Your task to perform on an android device: Go to network settings Image 0: 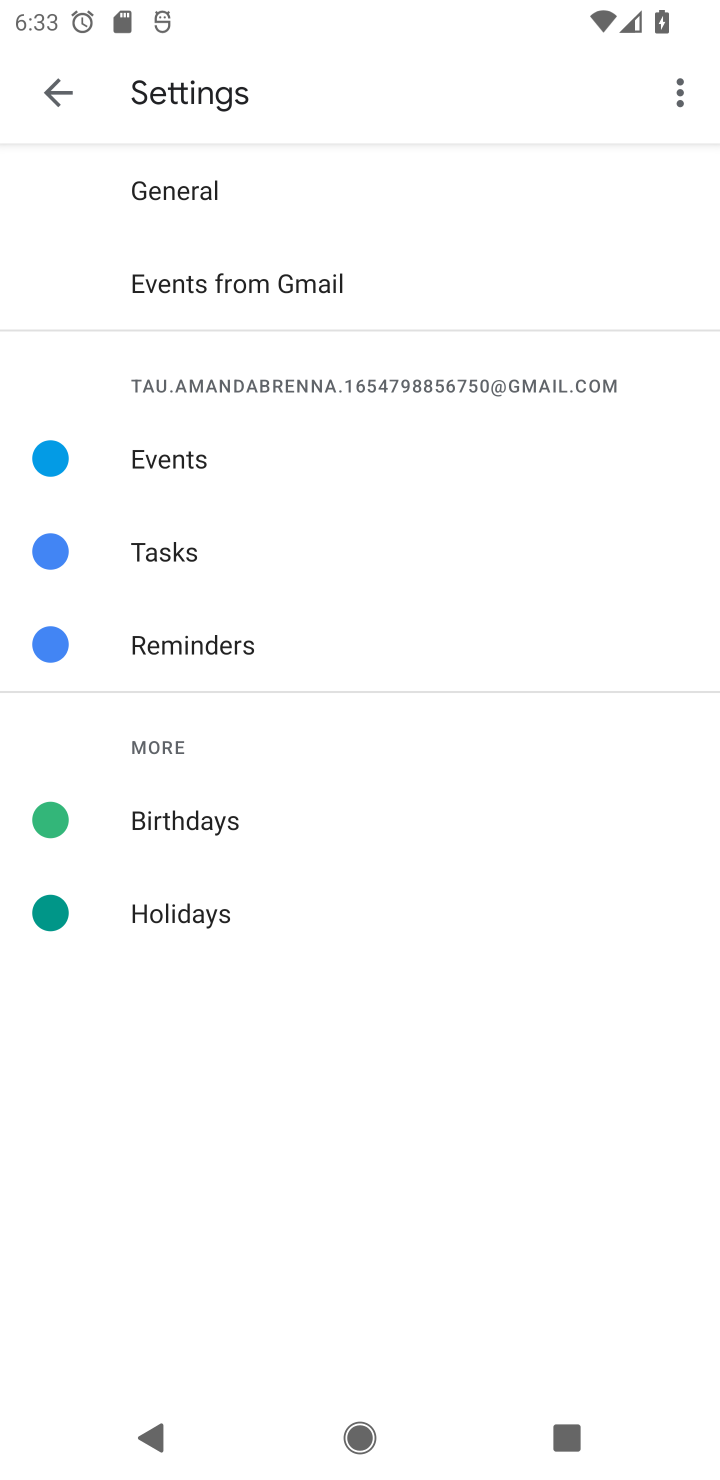
Step 0: click (62, 72)
Your task to perform on an android device: Go to network settings Image 1: 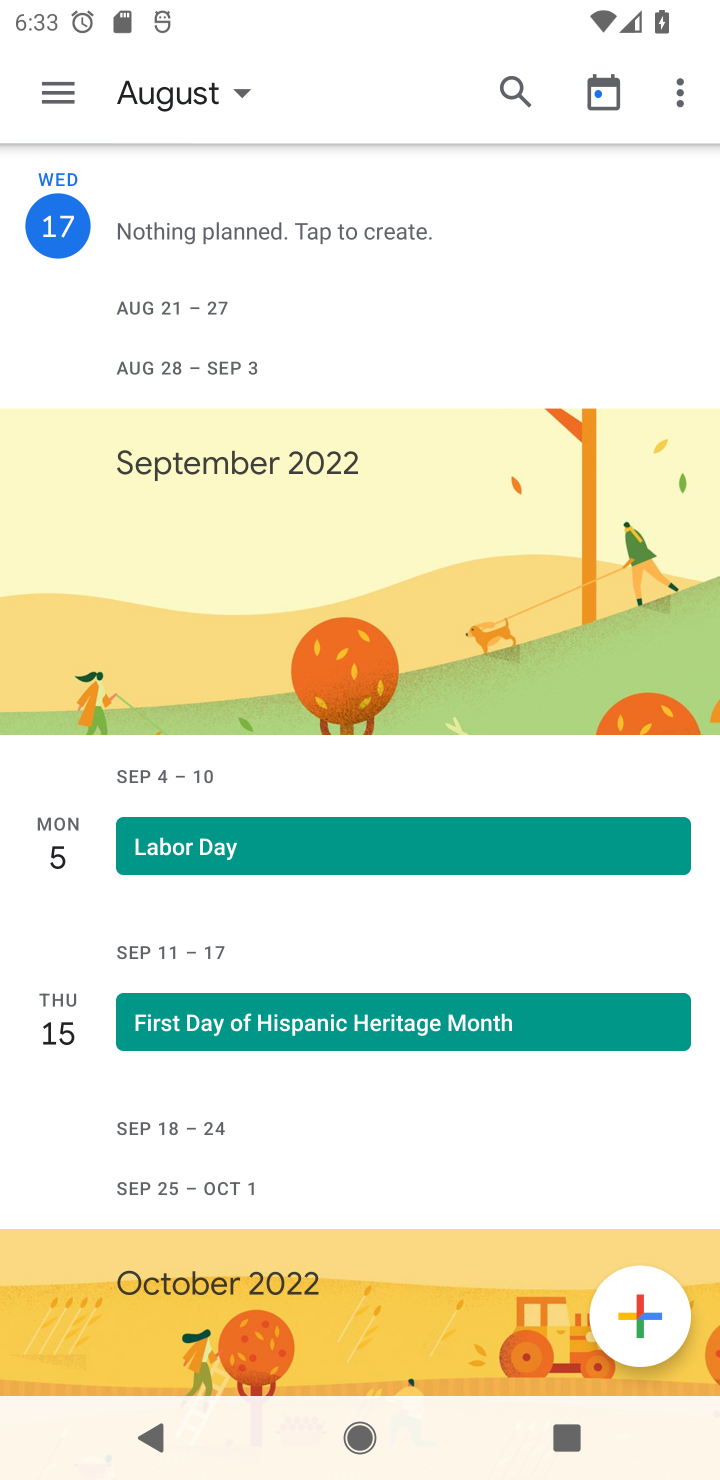
Step 1: press back button
Your task to perform on an android device: Go to network settings Image 2: 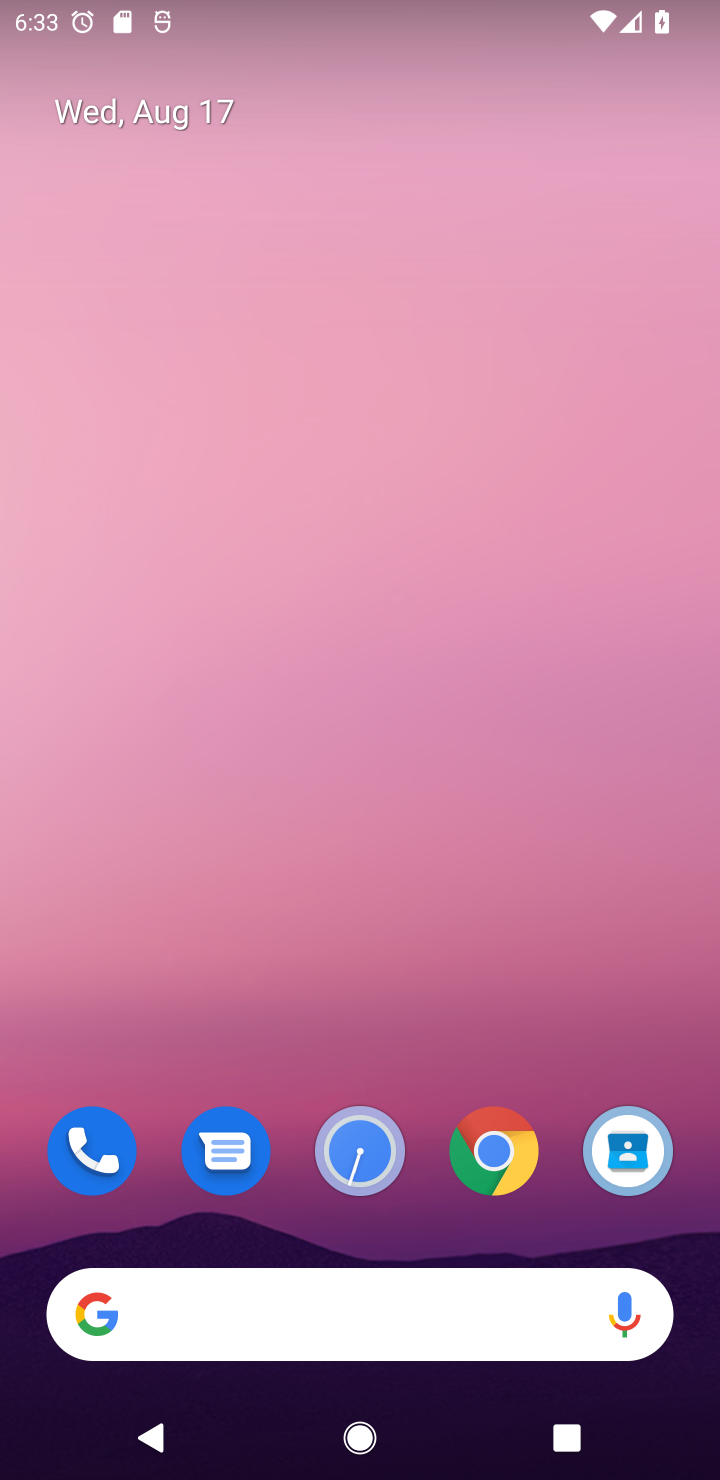
Step 2: press home button
Your task to perform on an android device: Go to network settings Image 3: 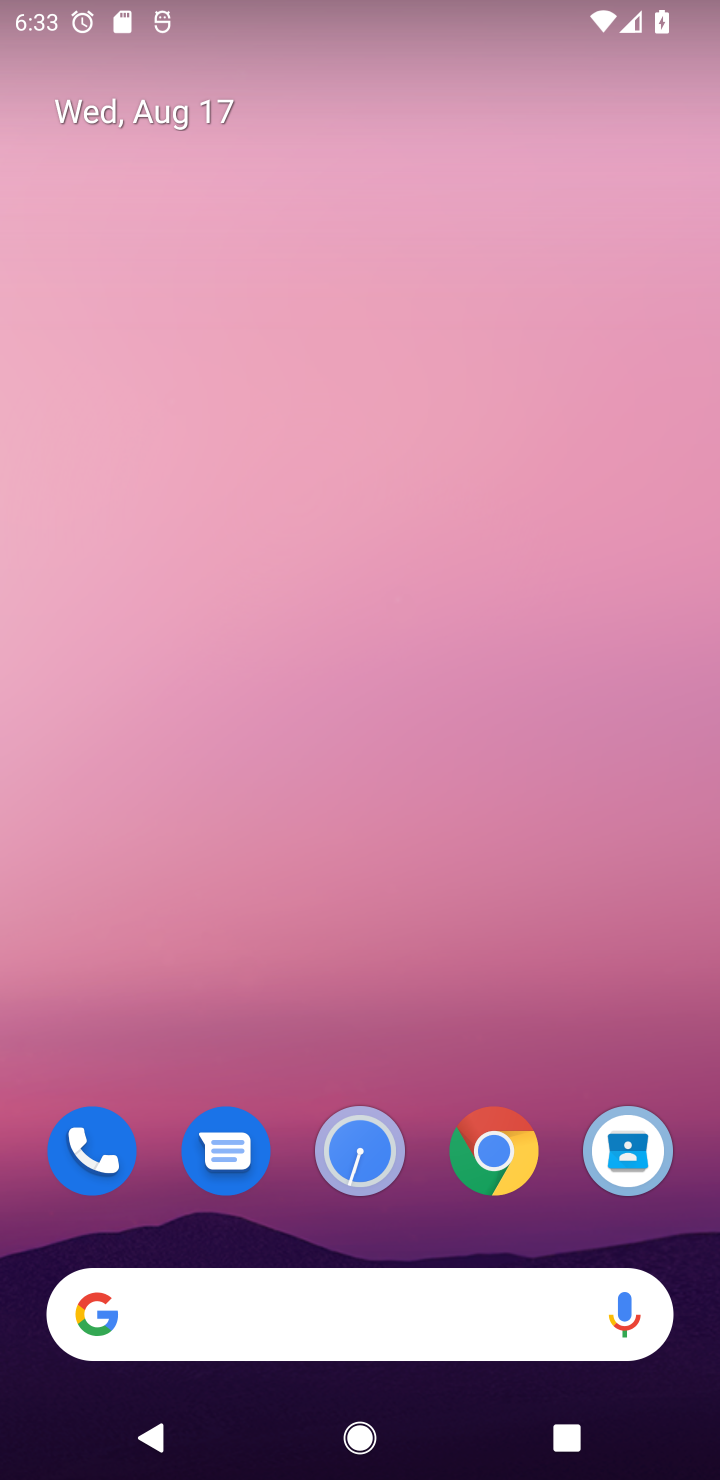
Step 3: drag from (422, 1237) to (389, 14)
Your task to perform on an android device: Go to network settings Image 4: 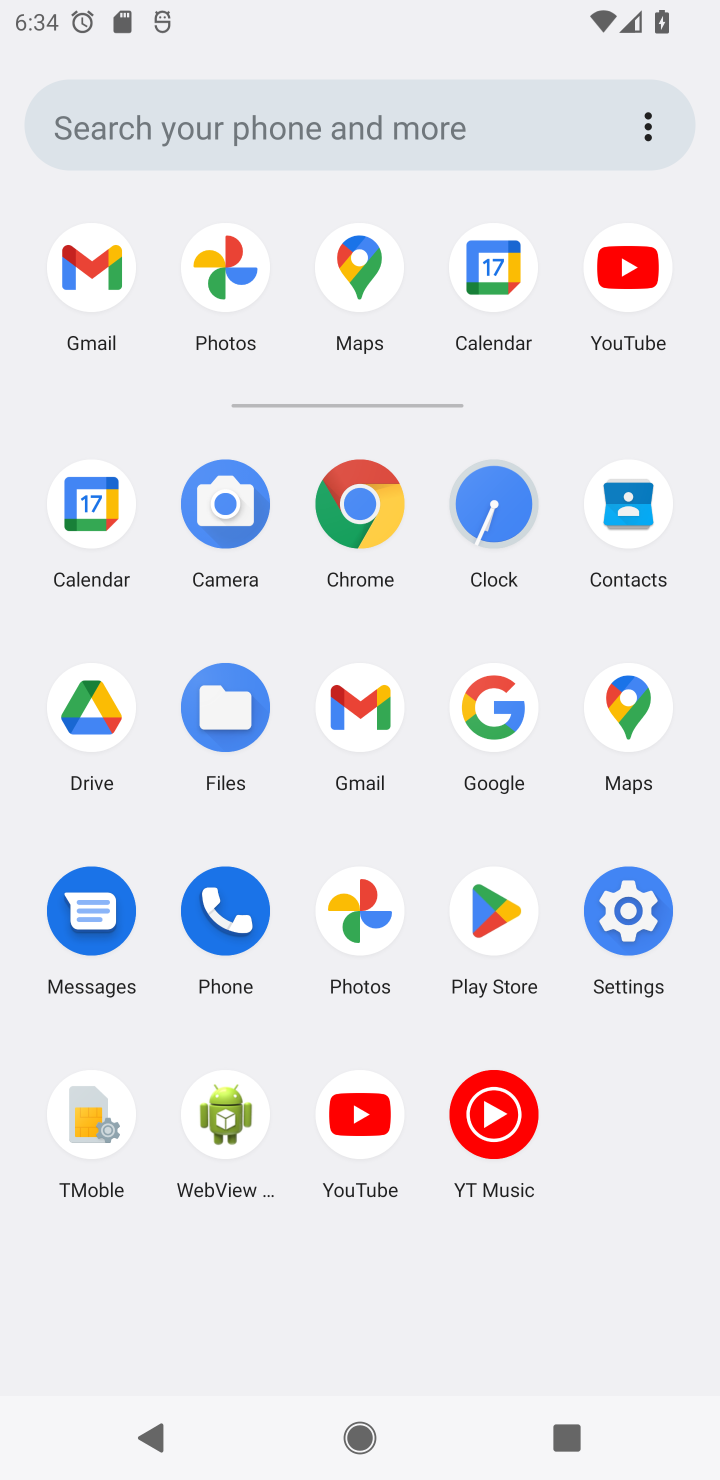
Step 4: click (641, 981)
Your task to perform on an android device: Go to network settings Image 5: 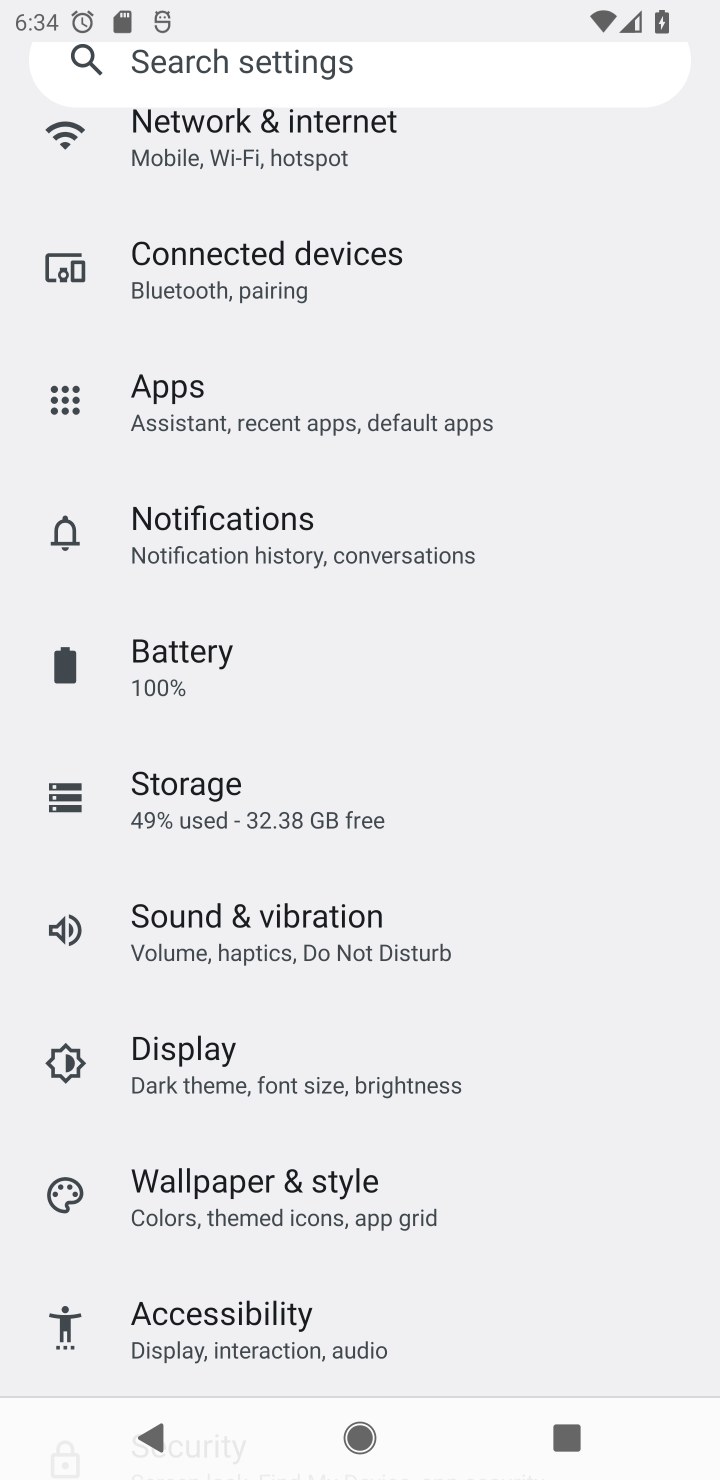
Step 5: click (257, 143)
Your task to perform on an android device: Go to network settings Image 6: 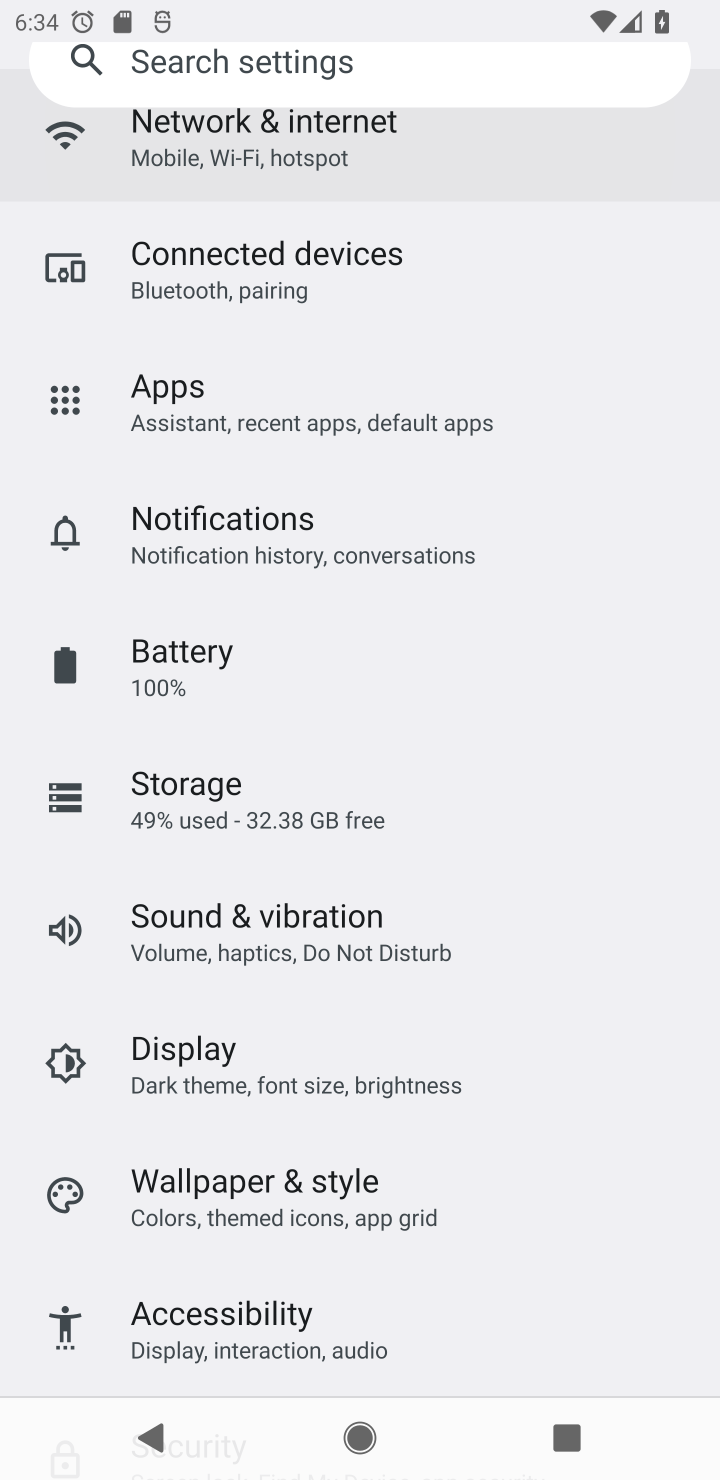
Step 6: task complete